Your task to perform on an android device: create a new album in the google photos Image 0: 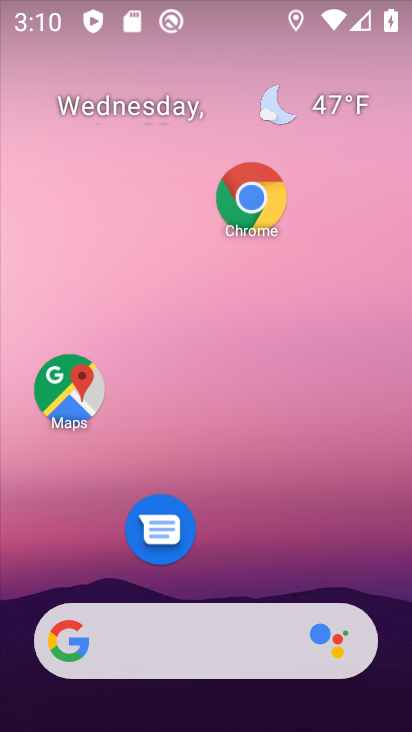
Step 0: click (335, 100)
Your task to perform on an android device: create a new album in the google photos Image 1: 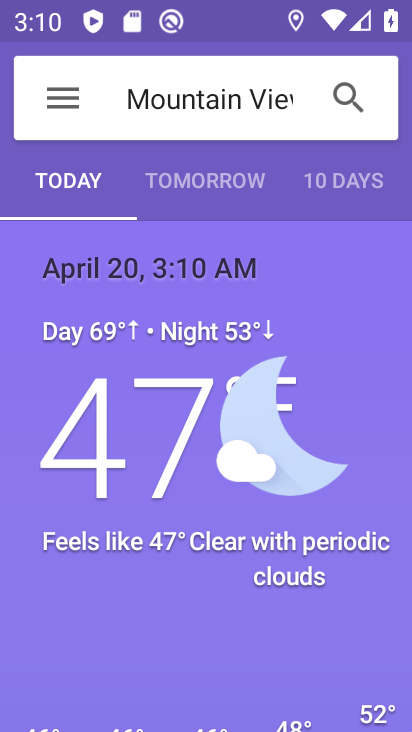
Step 1: task complete